Your task to perform on an android device: delete the emails in spam in the gmail app Image 0: 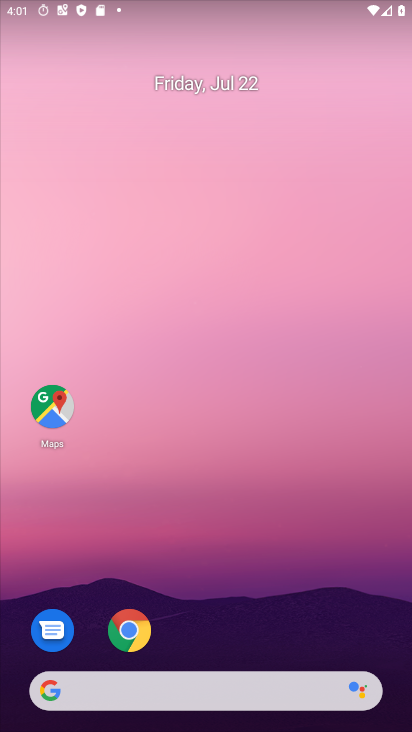
Step 0: drag from (337, 683) to (312, 21)
Your task to perform on an android device: delete the emails in spam in the gmail app Image 1: 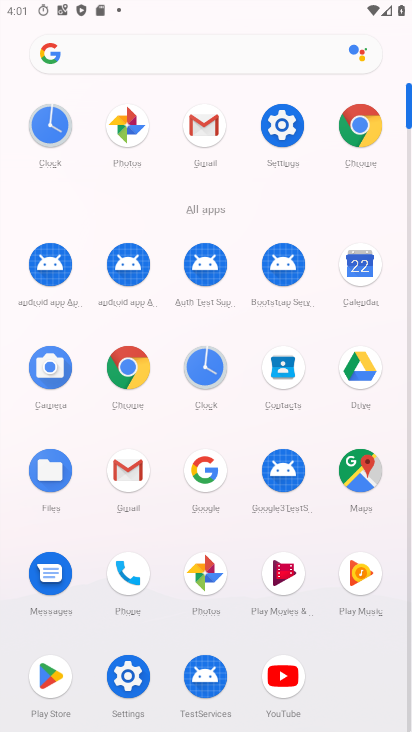
Step 1: click (133, 462)
Your task to perform on an android device: delete the emails in spam in the gmail app Image 2: 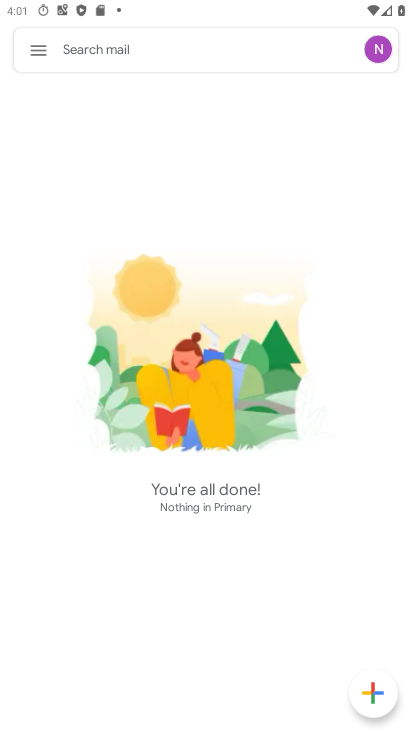
Step 2: click (32, 48)
Your task to perform on an android device: delete the emails in spam in the gmail app Image 3: 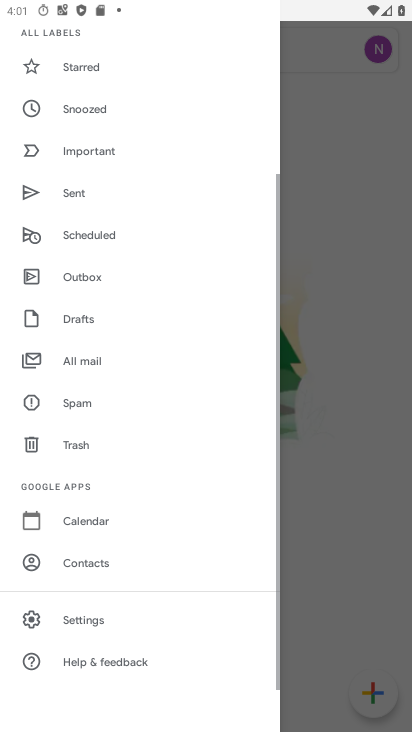
Step 3: click (87, 399)
Your task to perform on an android device: delete the emails in spam in the gmail app Image 4: 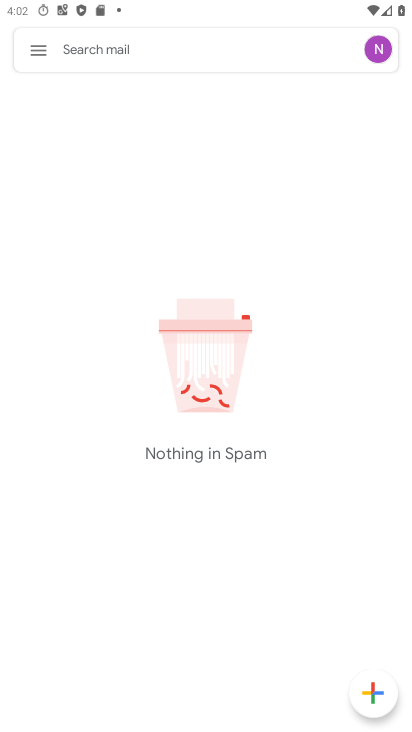
Step 4: task complete